Your task to perform on an android device: Go to ESPN.com Image 0: 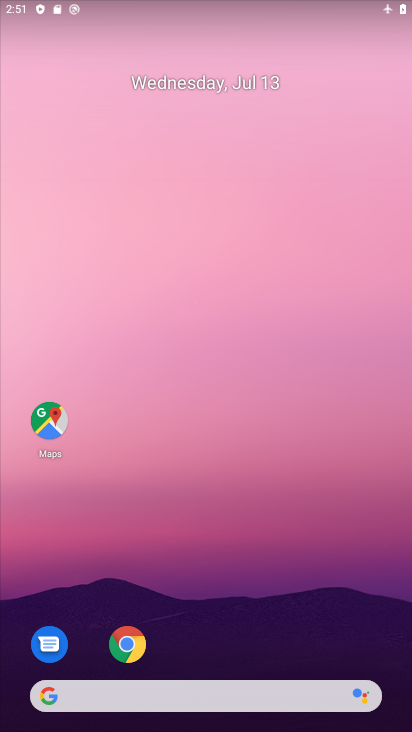
Step 0: click (127, 644)
Your task to perform on an android device: Go to ESPN.com Image 1: 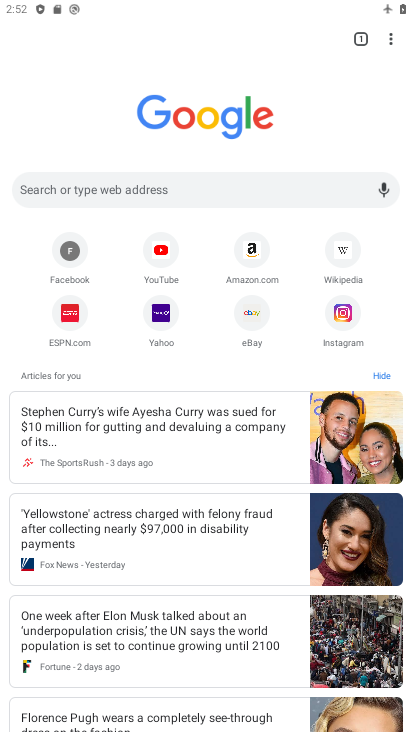
Step 1: click (74, 316)
Your task to perform on an android device: Go to ESPN.com Image 2: 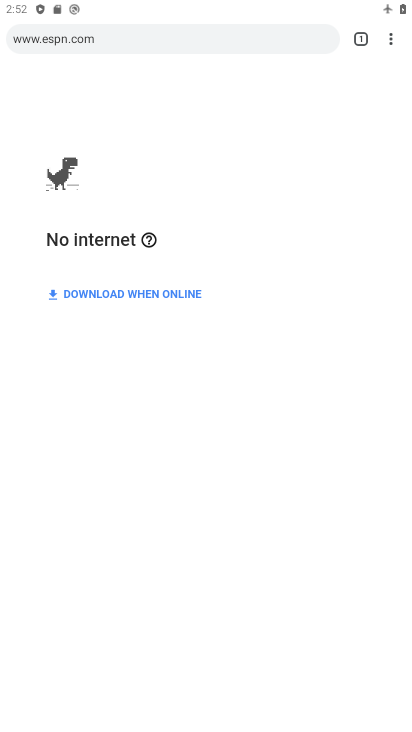
Step 2: task complete